Your task to perform on an android device: choose inbox layout in the gmail app Image 0: 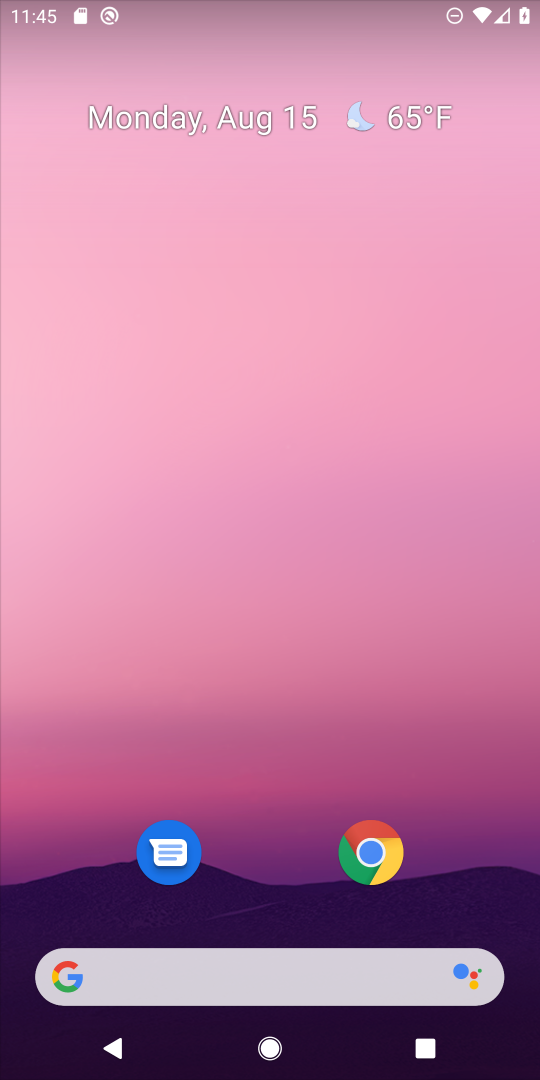
Step 0: drag from (300, 780) to (450, 5)
Your task to perform on an android device: choose inbox layout in the gmail app Image 1: 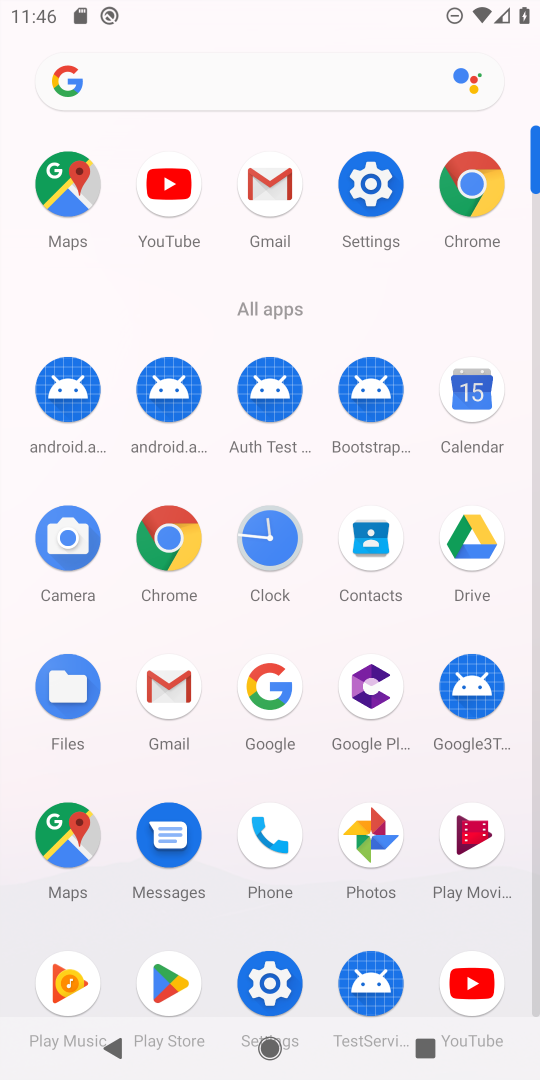
Step 1: click (275, 173)
Your task to perform on an android device: choose inbox layout in the gmail app Image 2: 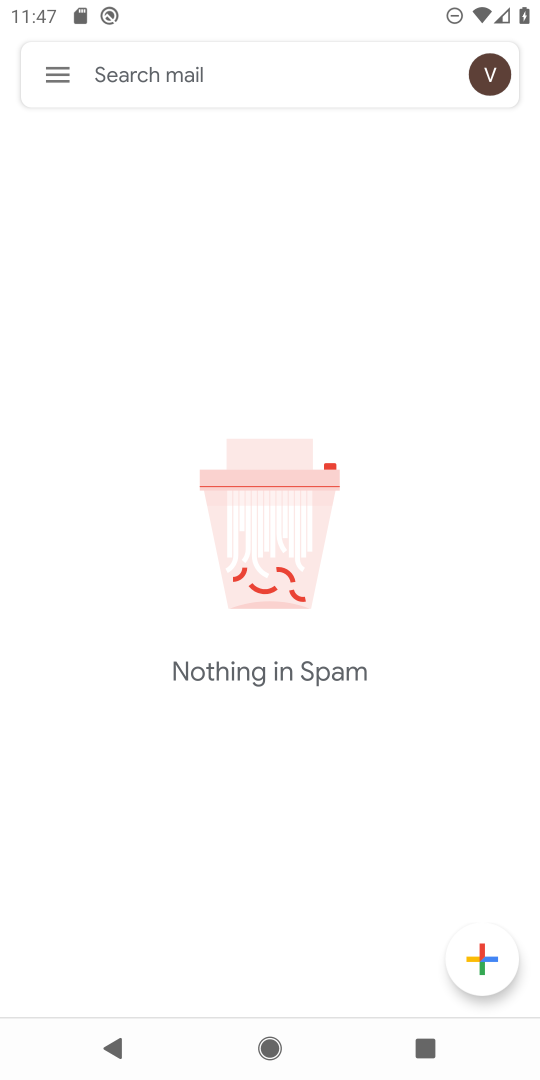
Step 2: click (65, 56)
Your task to perform on an android device: choose inbox layout in the gmail app Image 3: 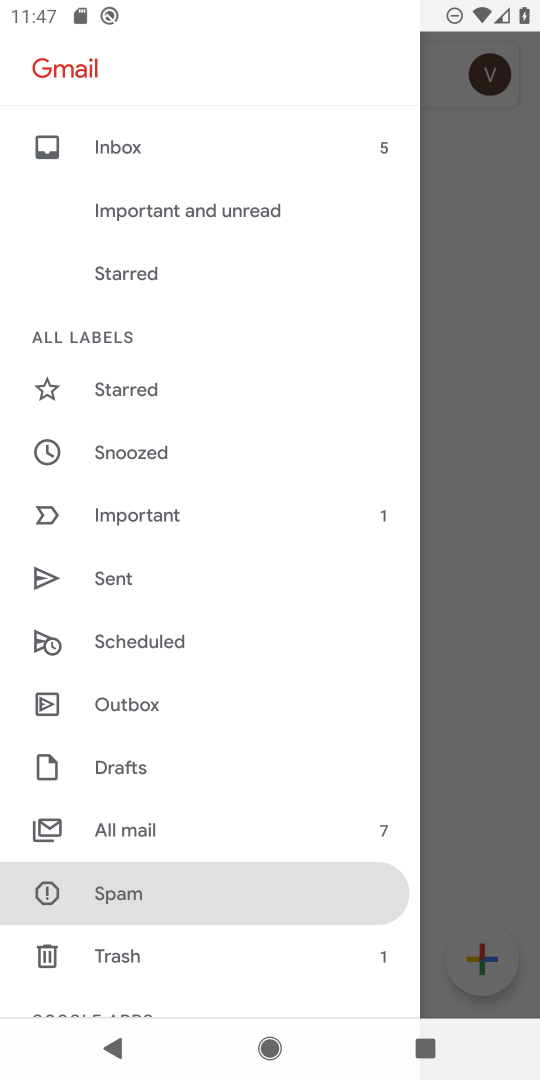
Step 3: drag from (190, 970) to (326, 104)
Your task to perform on an android device: choose inbox layout in the gmail app Image 4: 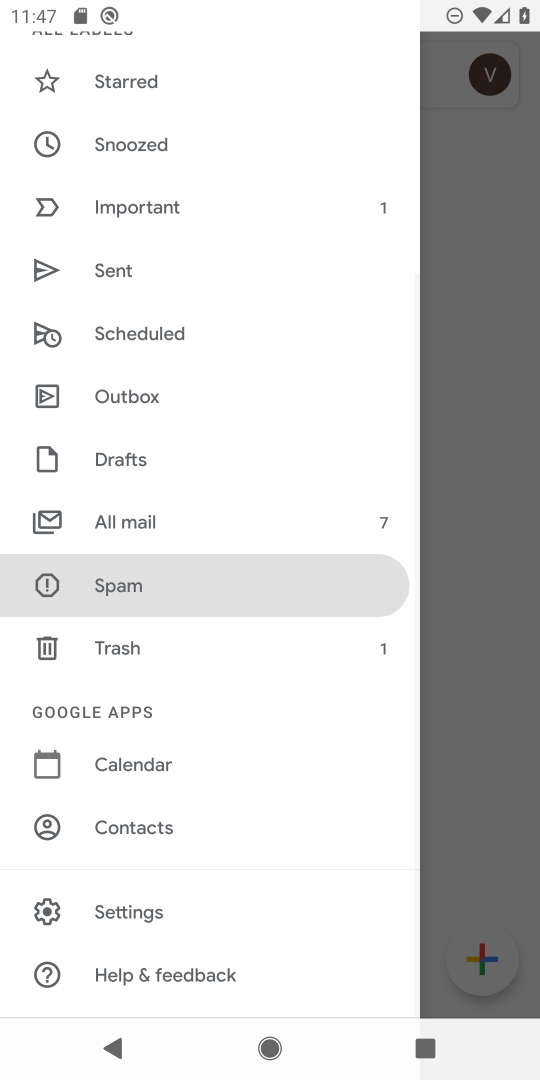
Step 4: click (127, 906)
Your task to perform on an android device: choose inbox layout in the gmail app Image 5: 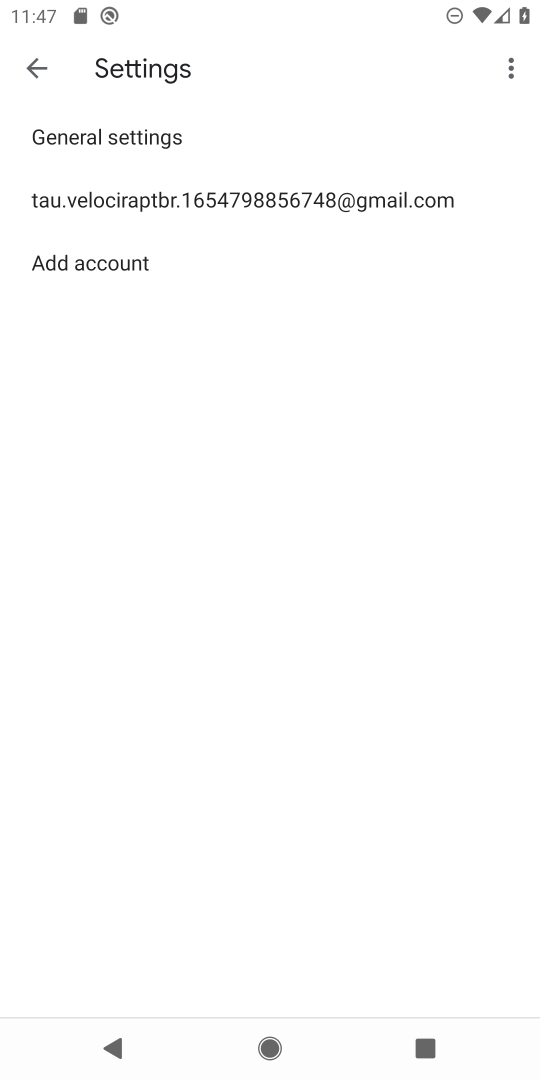
Step 5: click (220, 197)
Your task to perform on an android device: choose inbox layout in the gmail app Image 6: 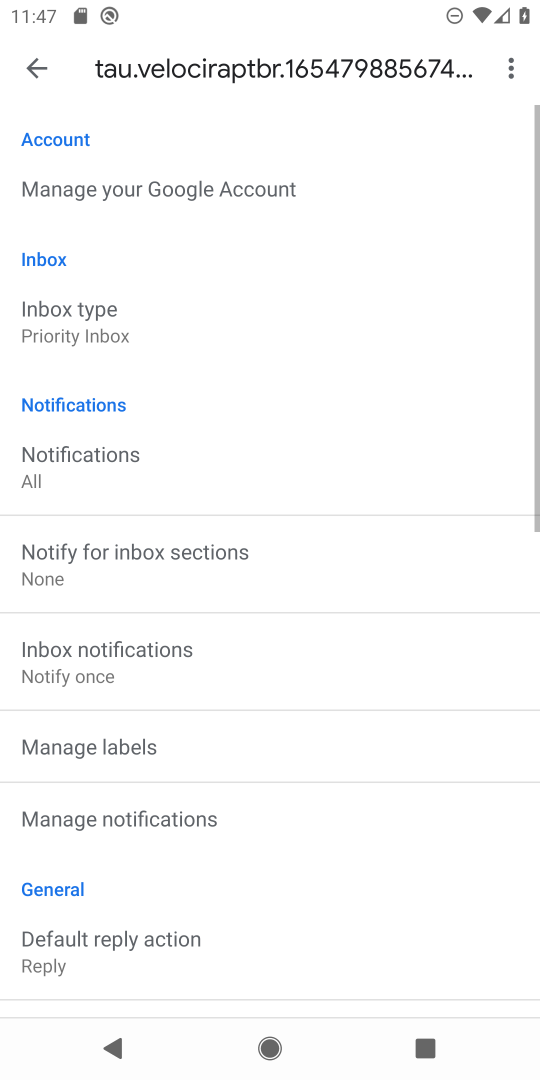
Step 6: click (85, 326)
Your task to perform on an android device: choose inbox layout in the gmail app Image 7: 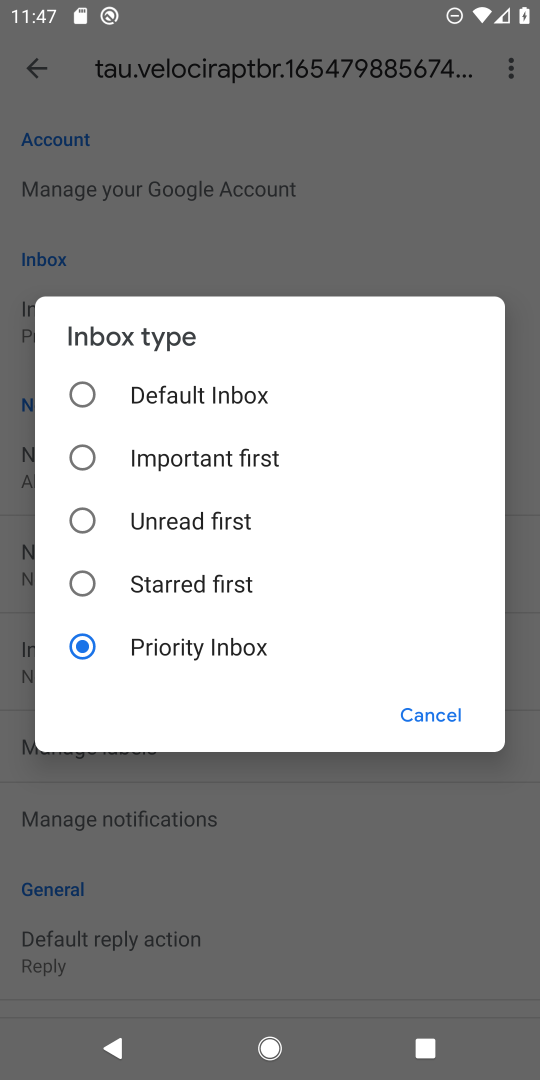
Step 7: click (86, 383)
Your task to perform on an android device: choose inbox layout in the gmail app Image 8: 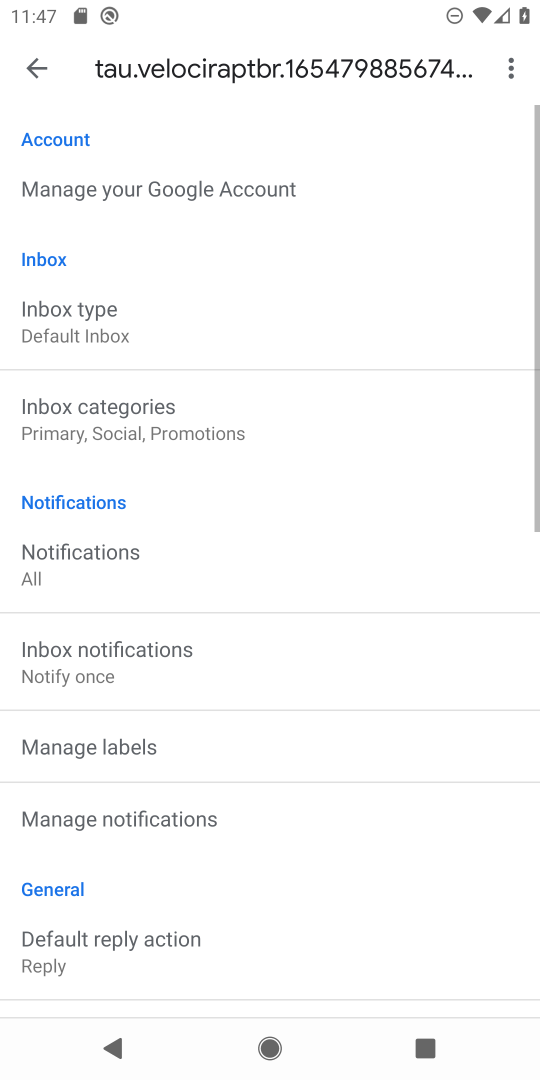
Step 8: task complete